Your task to perform on an android device: toggle show notifications on the lock screen Image 0: 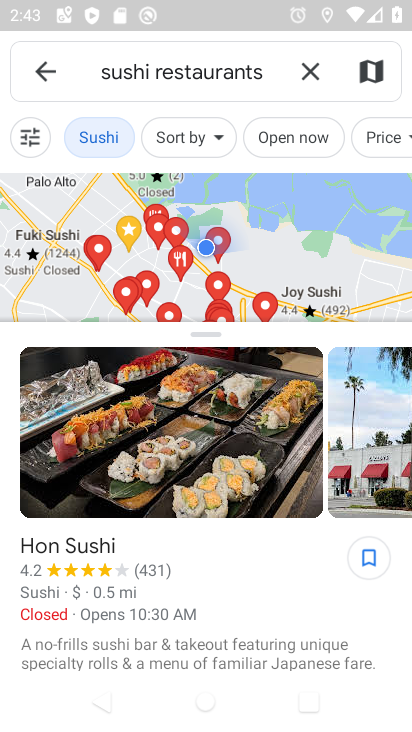
Step 0: press home button
Your task to perform on an android device: toggle show notifications on the lock screen Image 1: 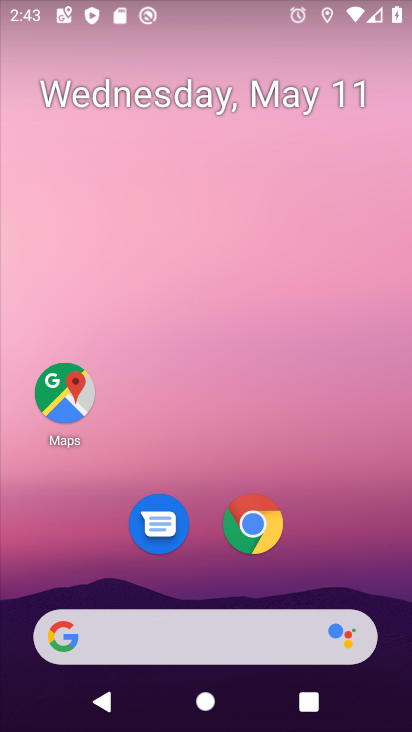
Step 1: drag from (323, 534) to (340, 53)
Your task to perform on an android device: toggle show notifications on the lock screen Image 2: 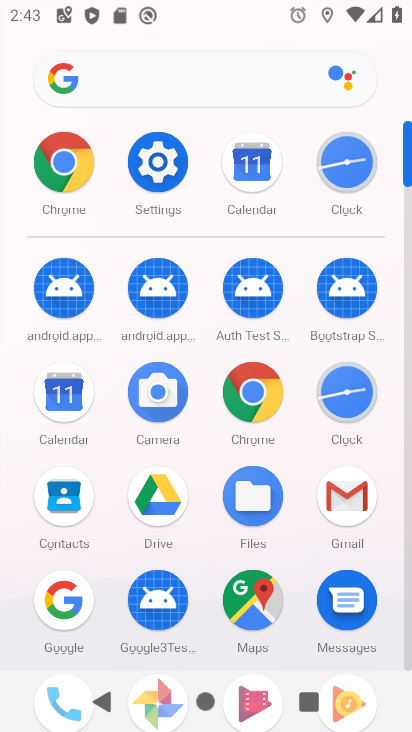
Step 2: click (171, 159)
Your task to perform on an android device: toggle show notifications on the lock screen Image 3: 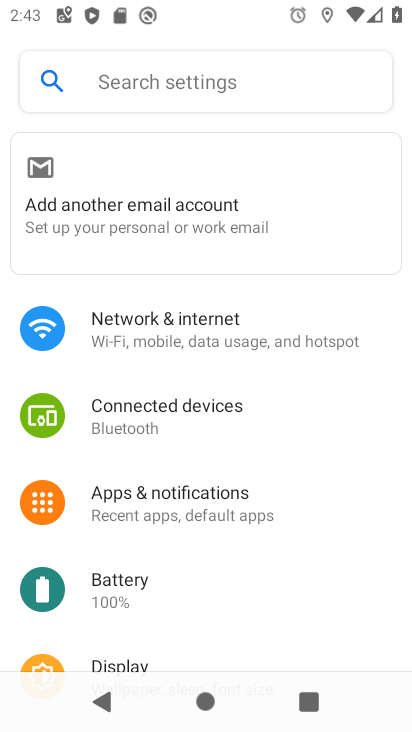
Step 3: click (200, 492)
Your task to perform on an android device: toggle show notifications on the lock screen Image 4: 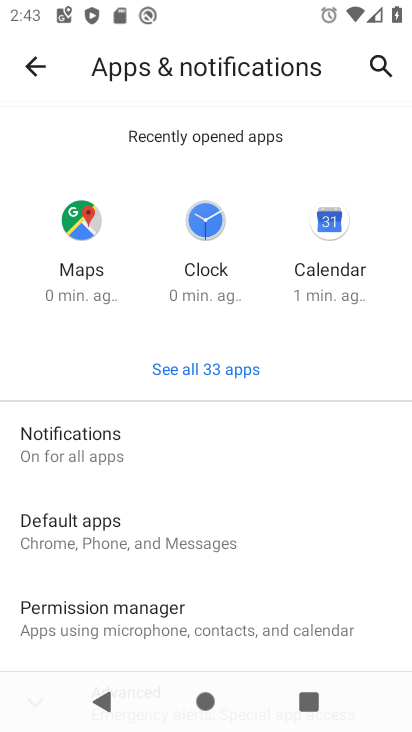
Step 4: drag from (265, 588) to (330, 443)
Your task to perform on an android device: toggle show notifications on the lock screen Image 5: 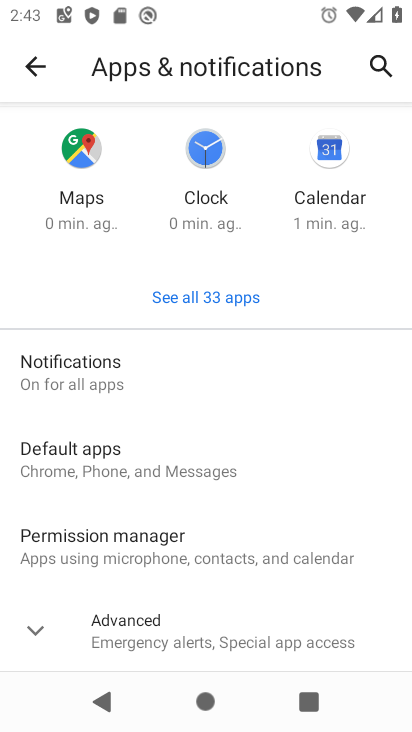
Step 5: click (112, 372)
Your task to perform on an android device: toggle show notifications on the lock screen Image 6: 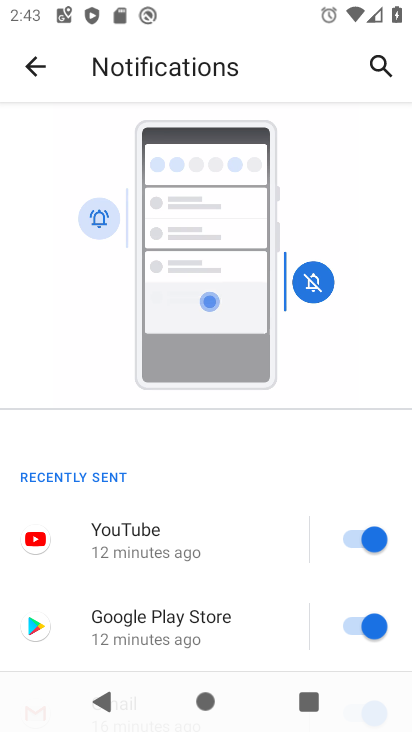
Step 6: task complete